Your task to perform on an android device: Open calendar and show me the first week of next month Image 0: 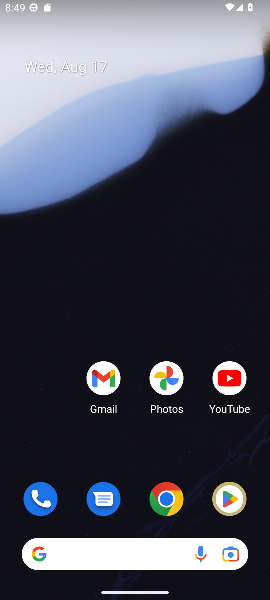
Step 0: drag from (226, 466) to (150, 111)
Your task to perform on an android device: Open calendar and show me the first week of next month Image 1: 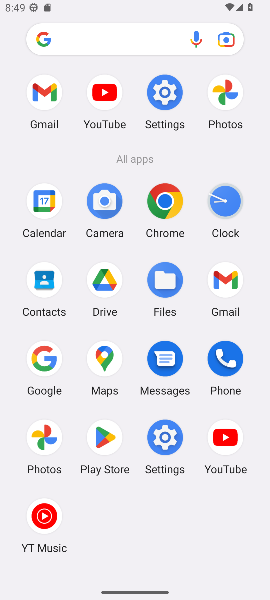
Step 1: click (45, 204)
Your task to perform on an android device: Open calendar and show me the first week of next month Image 2: 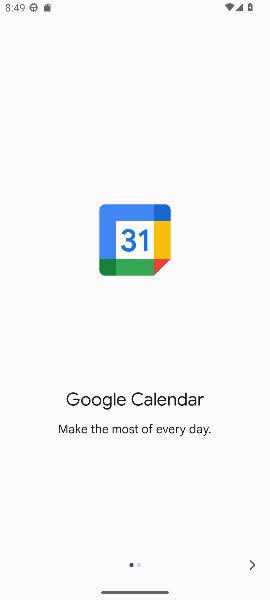
Step 2: click (257, 565)
Your task to perform on an android device: Open calendar and show me the first week of next month Image 3: 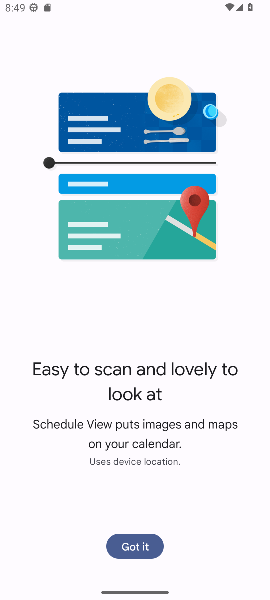
Step 3: click (152, 551)
Your task to perform on an android device: Open calendar and show me the first week of next month Image 4: 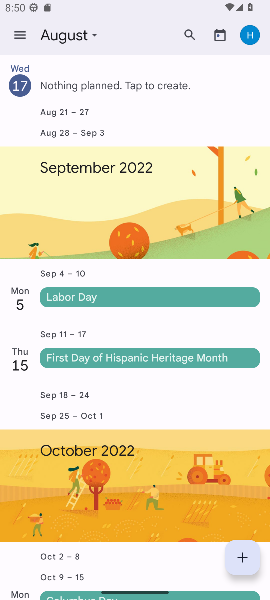
Step 4: click (70, 36)
Your task to perform on an android device: Open calendar and show me the first week of next month Image 5: 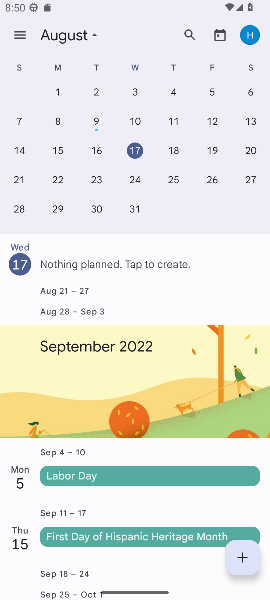
Step 5: drag from (245, 194) to (0, 167)
Your task to perform on an android device: Open calendar and show me the first week of next month Image 6: 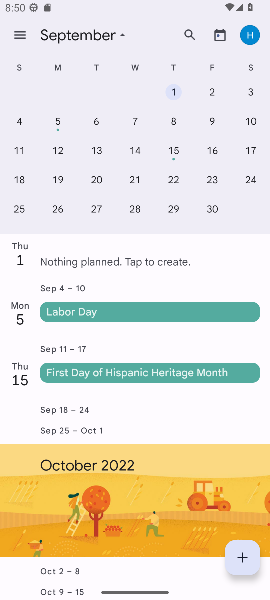
Step 6: click (101, 122)
Your task to perform on an android device: Open calendar and show me the first week of next month Image 7: 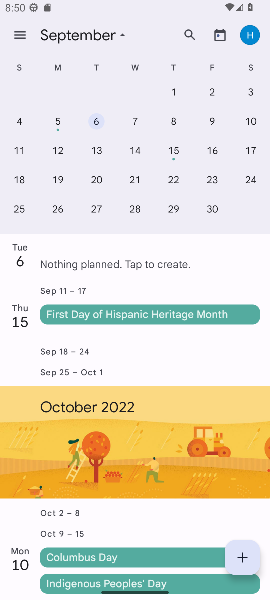
Step 7: click (27, 35)
Your task to perform on an android device: Open calendar and show me the first week of next month Image 8: 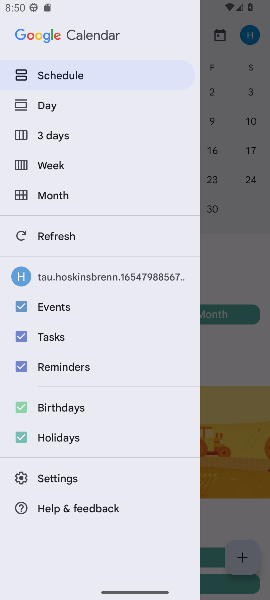
Step 8: click (53, 164)
Your task to perform on an android device: Open calendar and show me the first week of next month Image 9: 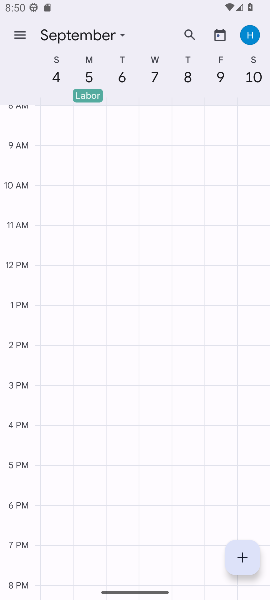
Step 9: task complete